Your task to perform on an android device: manage bookmarks in the chrome app Image 0: 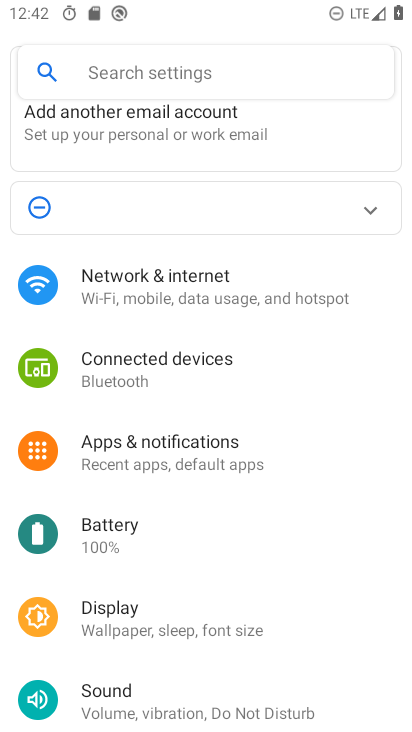
Step 0: press home button
Your task to perform on an android device: manage bookmarks in the chrome app Image 1: 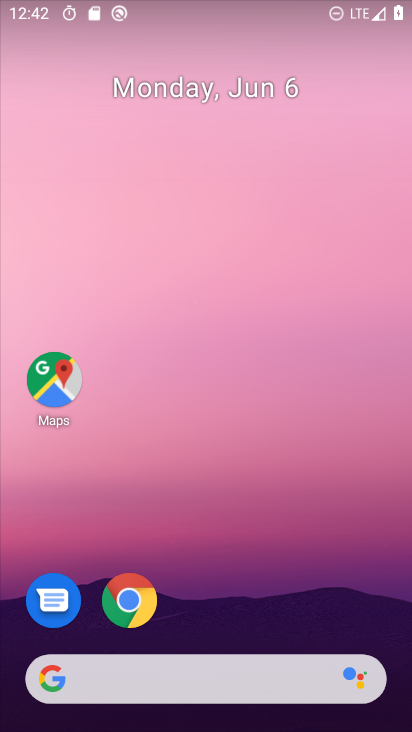
Step 1: click (141, 586)
Your task to perform on an android device: manage bookmarks in the chrome app Image 2: 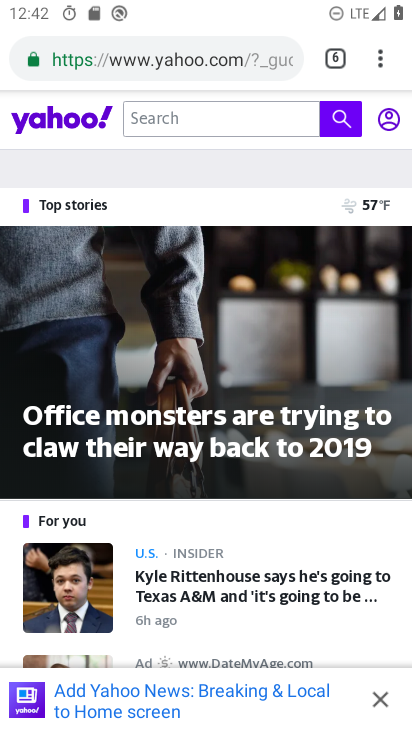
Step 2: drag from (382, 70) to (227, 226)
Your task to perform on an android device: manage bookmarks in the chrome app Image 3: 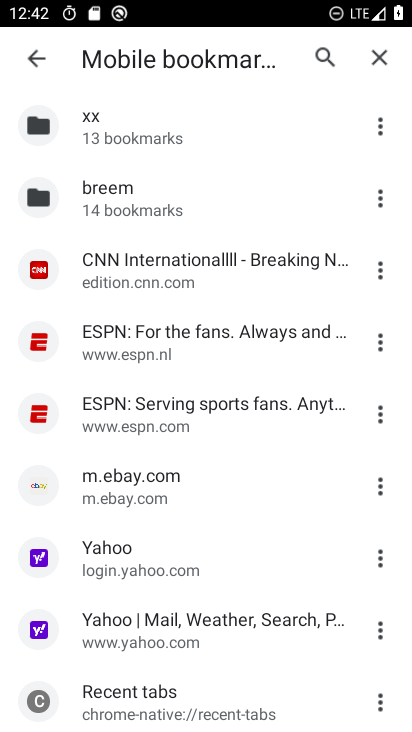
Step 3: click (379, 271)
Your task to perform on an android device: manage bookmarks in the chrome app Image 4: 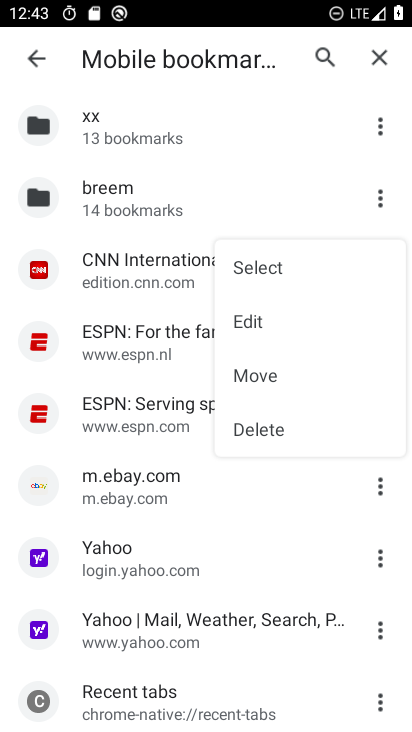
Step 4: click (285, 421)
Your task to perform on an android device: manage bookmarks in the chrome app Image 5: 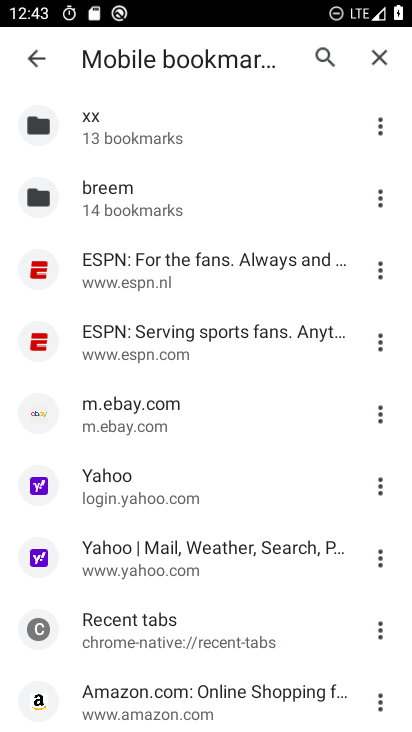
Step 5: task complete